Your task to perform on an android device: toggle notification dots Image 0: 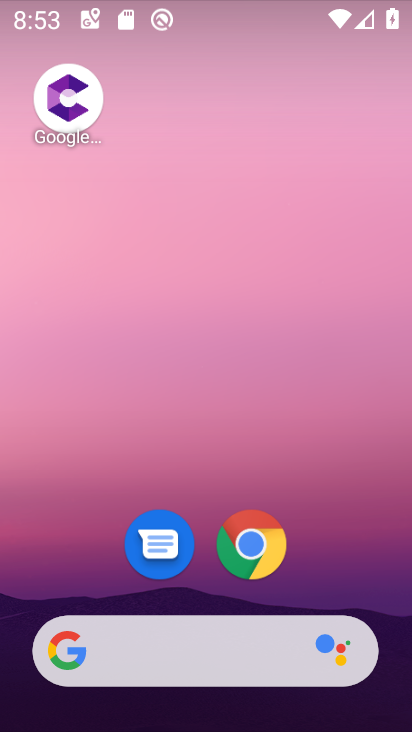
Step 0: drag from (349, 555) to (361, 100)
Your task to perform on an android device: toggle notification dots Image 1: 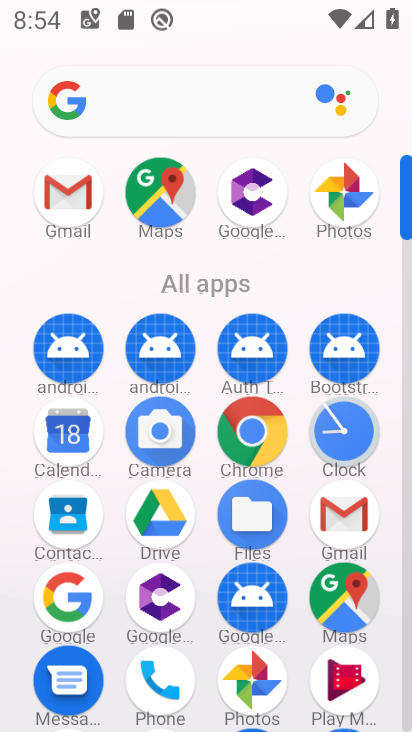
Step 1: drag from (300, 623) to (292, 134)
Your task to perform on an android device: toggle notification dots Image 2: 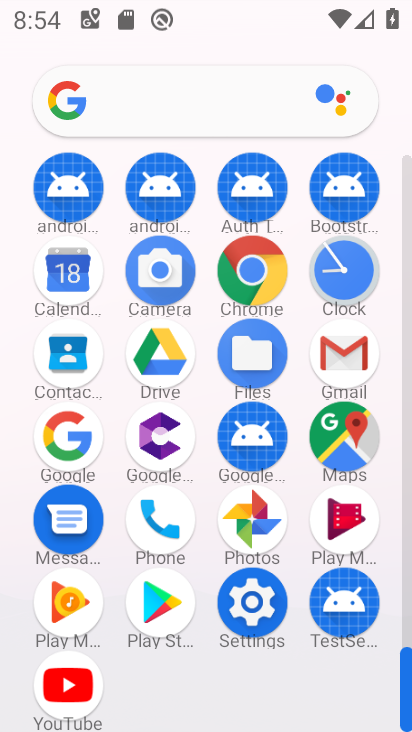
Step 2: click (244, 616)
Your task to perform on an android device: toggle notification dots Image 3: 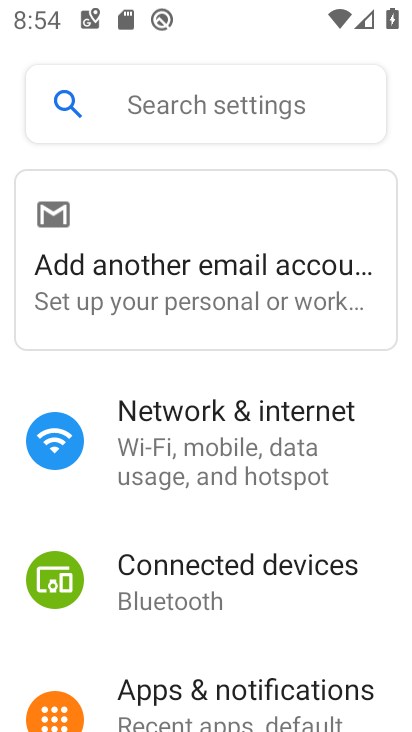
Step 3: drag from (240, 572) to (279, 265)
Your task to perform on an android device: toggle notification dots Image 4: 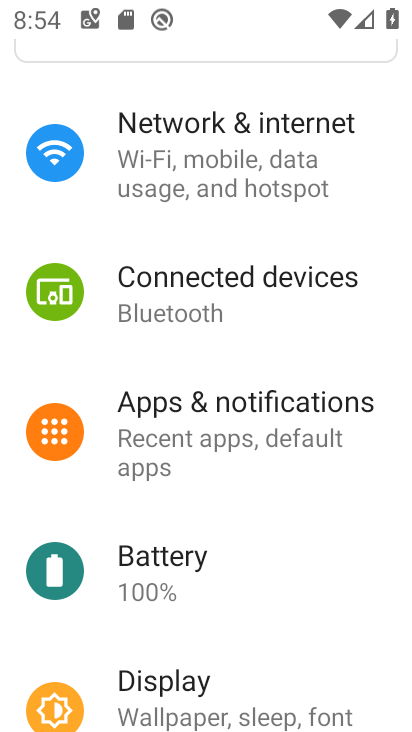
Step 4: click (237, 432)
Your task to perform on an android device: toggle notification dots Image 5: 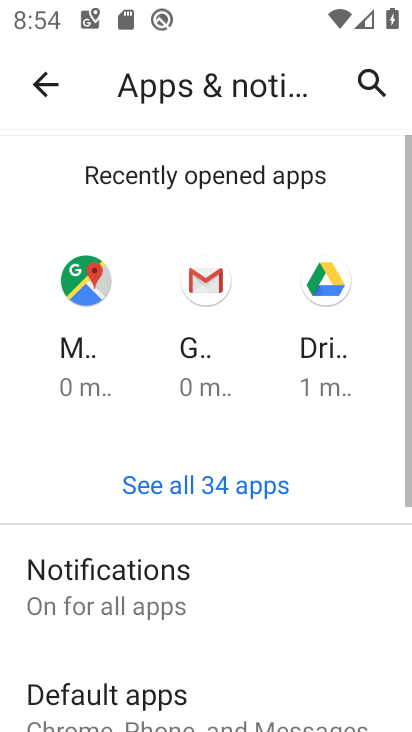
Step 5: click (131, 621)
Your task to perform on an android device: toggle notification dots Image 6: 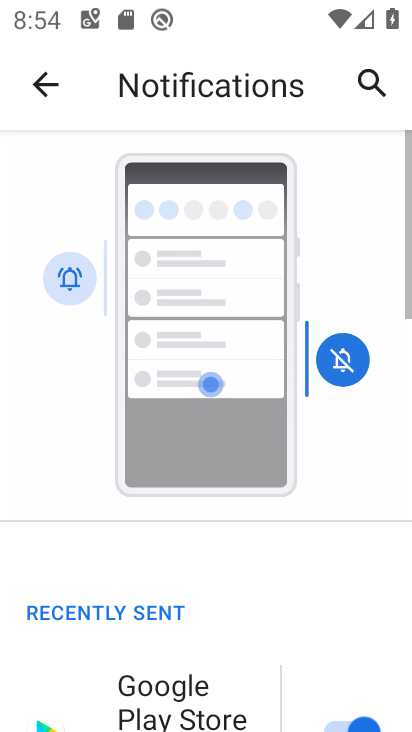
Step 6: drag from (267, 606) to (287, 126)
Your task to perform on an android device: toggle notification dots Image 7: 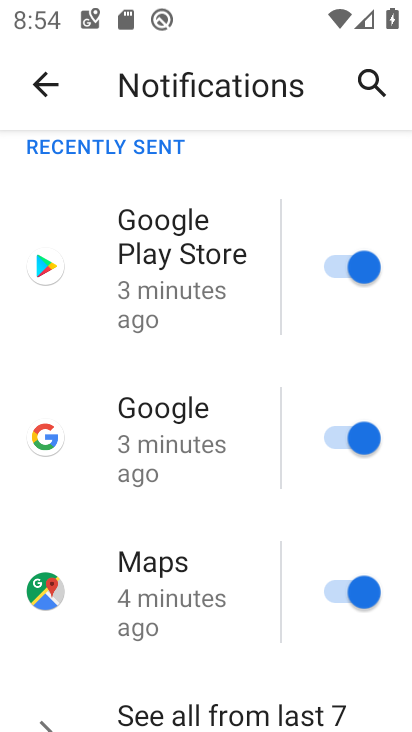
Step 7: drag from (190, 711) to (243, 288)
Your task to perform on an android device: toggle notification dots Image 8: 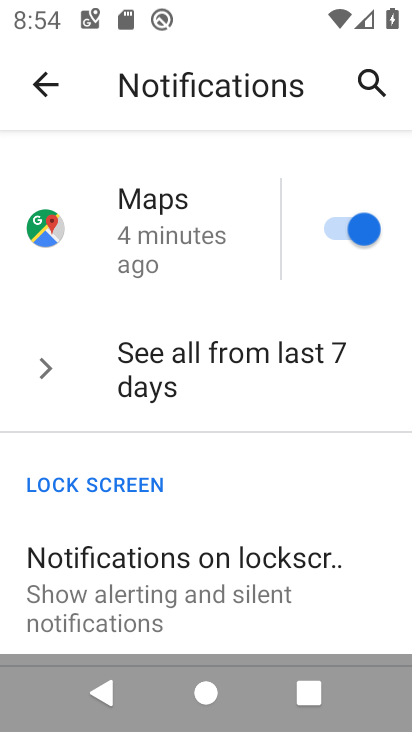
Step 8: drag from (277, 499) to (351, 9)
Your task to perform on an android device: toggle notification dots Image 9: 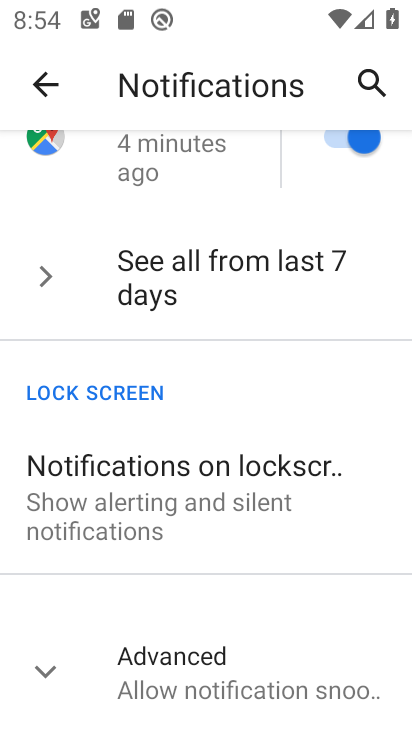
Step 9: click (222, 642)
Your task to perform on an android device: toggle notification dots Image 10: 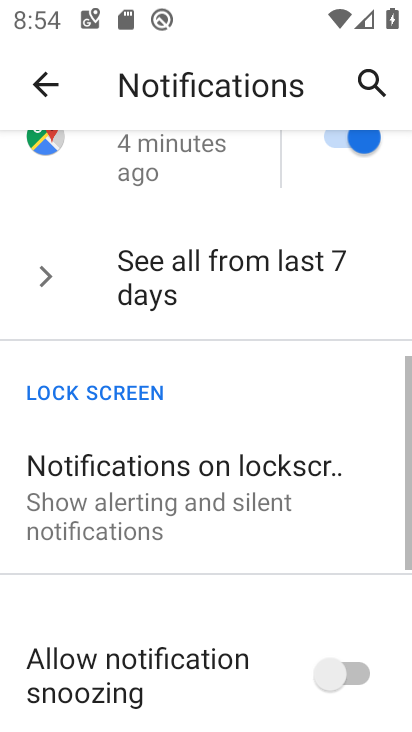
Step 10: drag from (253, 590) to (326, 159)
Your task to perform on an android device: toggle notification dots Image 11: 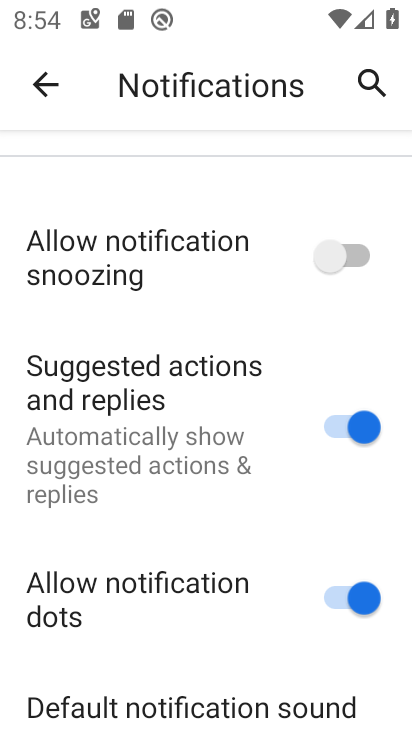
Step 11: click (348, 611)
Your task to perform on an android device: toggle notification dots Image 12: 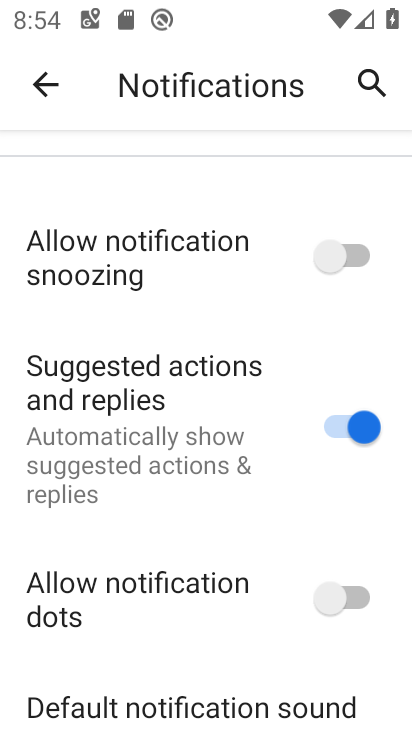
Step 12: task complete